Your task to perform on an android device: turn off improve location accuracy Image 0: 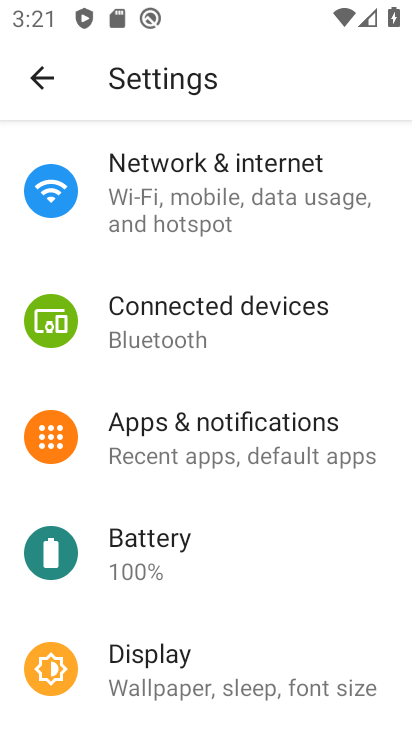
Step 0: drag from (265, 687) to (296, 0)
Your task to perform on an android device: turn off improve location accuracy Image 1: 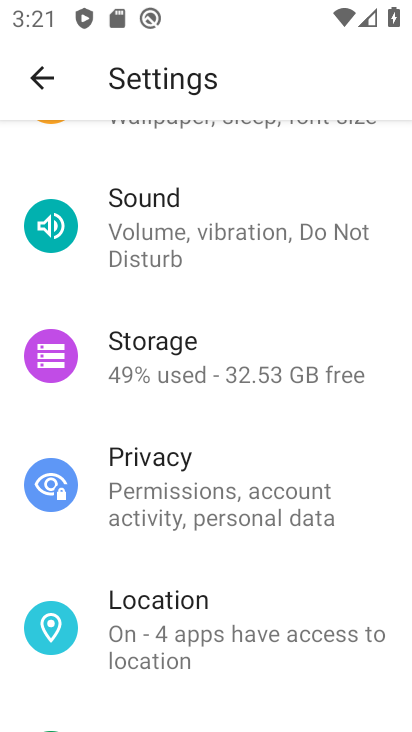
Step 1: click (168, 619)
Your task to perform on an android device: turn off improve location accuracy Image 2: 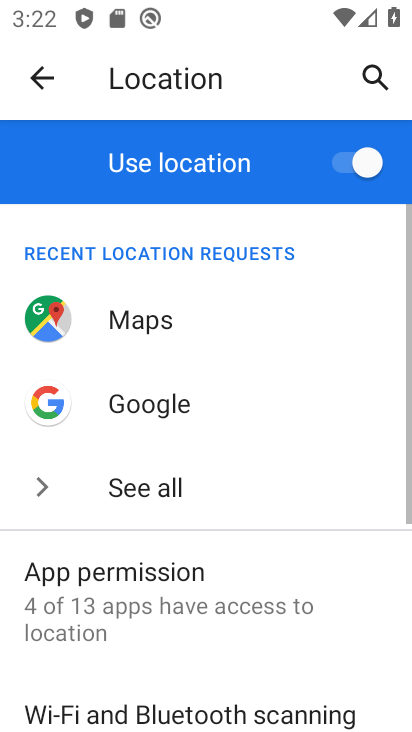
Step 2: drag from (201, 541) to (268, 53)
Your task to perform on an android device: turn off improve location accuracy Image 3: 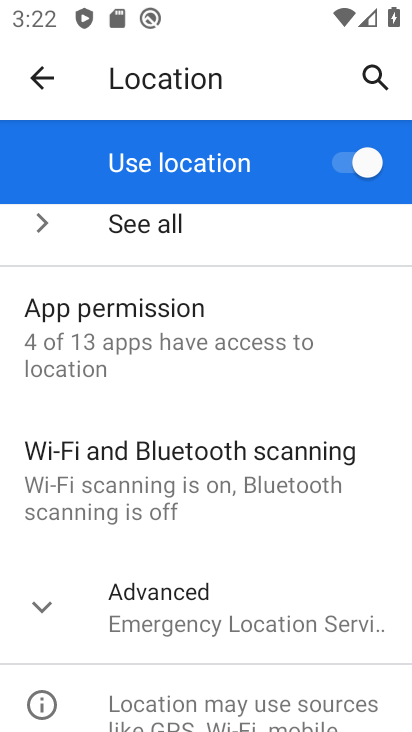
Step 3: drag from (181, 573) to (267, 34)
Your task to perform on an android device: turn off improve location accuracy Image 4: 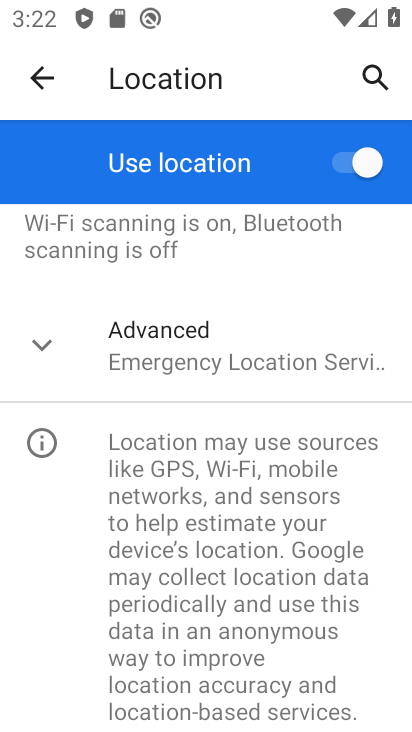
Step 4: click (184, 333)
Your task to perform on an android device: turn off improve location accuracy Image 5: 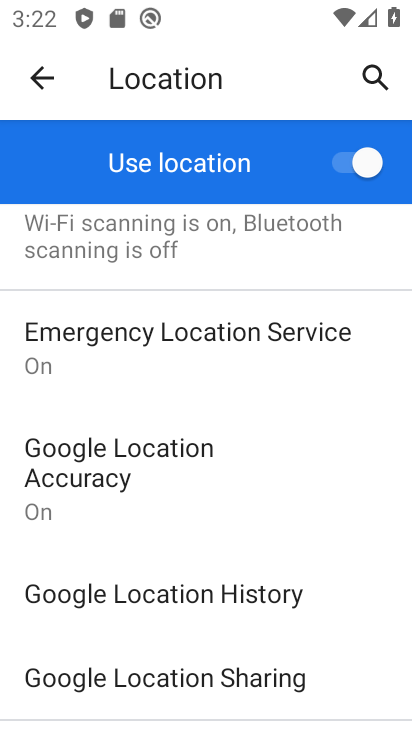
Step 5: click (164, 465)
Your task to perform on an android device: turn off improve location accuracy Image 6: 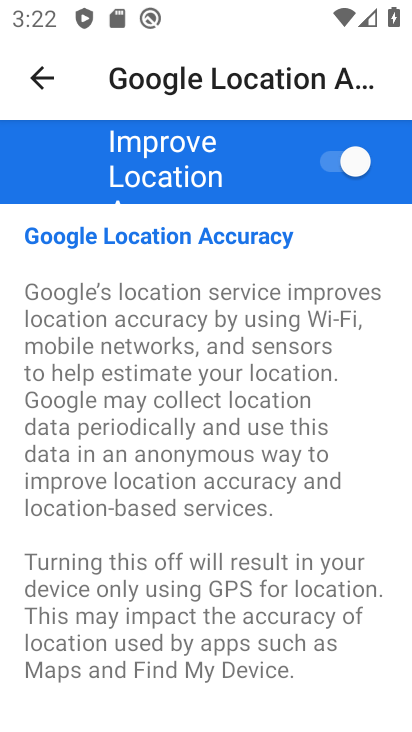
Step 6: drag from (163, 675) to (180, 472)
Your task to perform on an android device: turn off improve location accuracy Image 7: 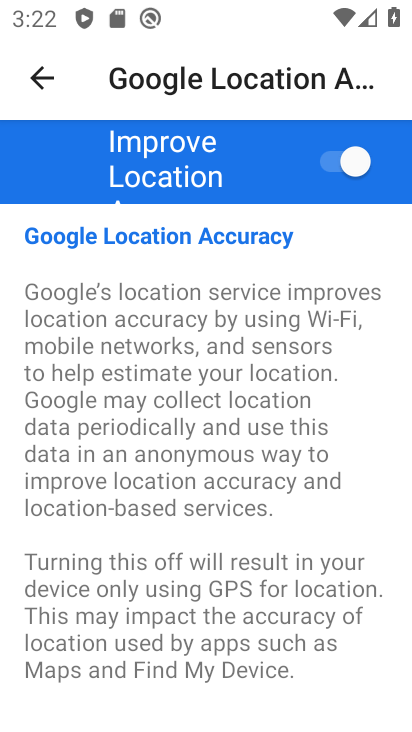
Step 7: click (349, 165)
Your task to perform on an android device: turn off improve location accuracy Image 8: 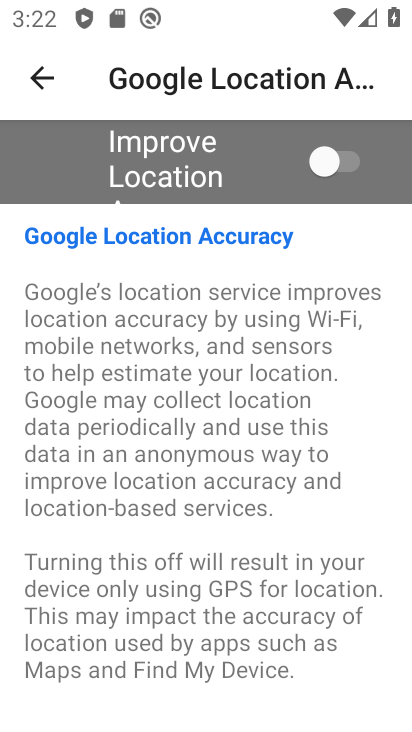
Step 8: task complete